Your task to perform on an android device: What's a good restaurant in Denver? Image 0: 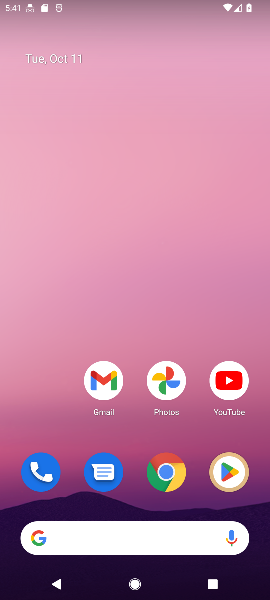
Step 0: click (164, 455)
Your task to perform on an android device: What's a good restaurant in Denver? Image 1: 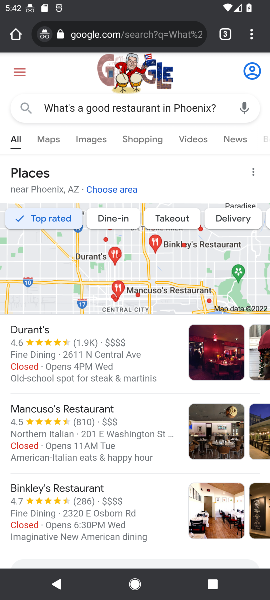
Step 1: click (186, 35)
Your task to perform on an android device: What's a good restaurant in Denver? Image 2: 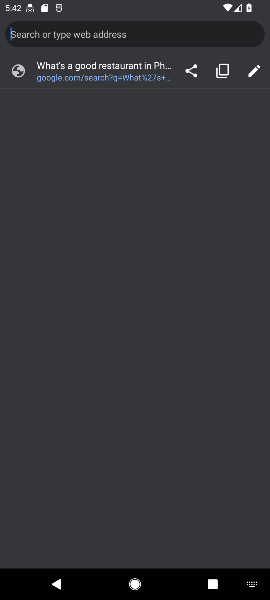
Step 2: type "good restaurant in Denver?"
Your task to perform on an android device: What's a good restaurant in Denver? Image 3: 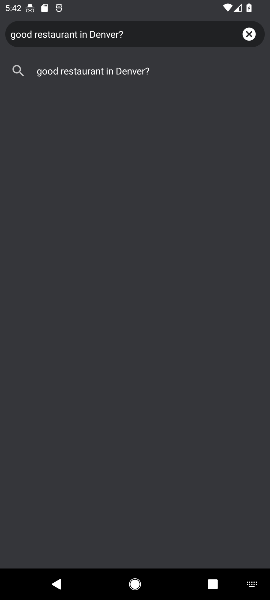
Step 3: click (116, 77)
Your task to perform on an android device: What's a good restaurant in Denver? Image 4: 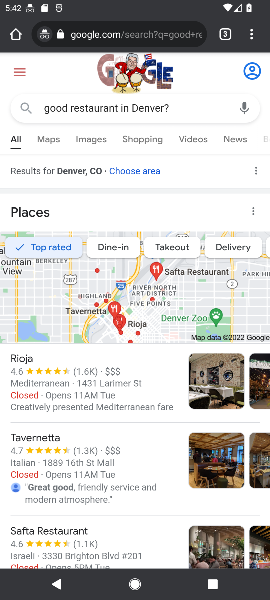
Step 4: task complete